Your task to perform on an android device: turn off smart reply in the gmail app Image 0: 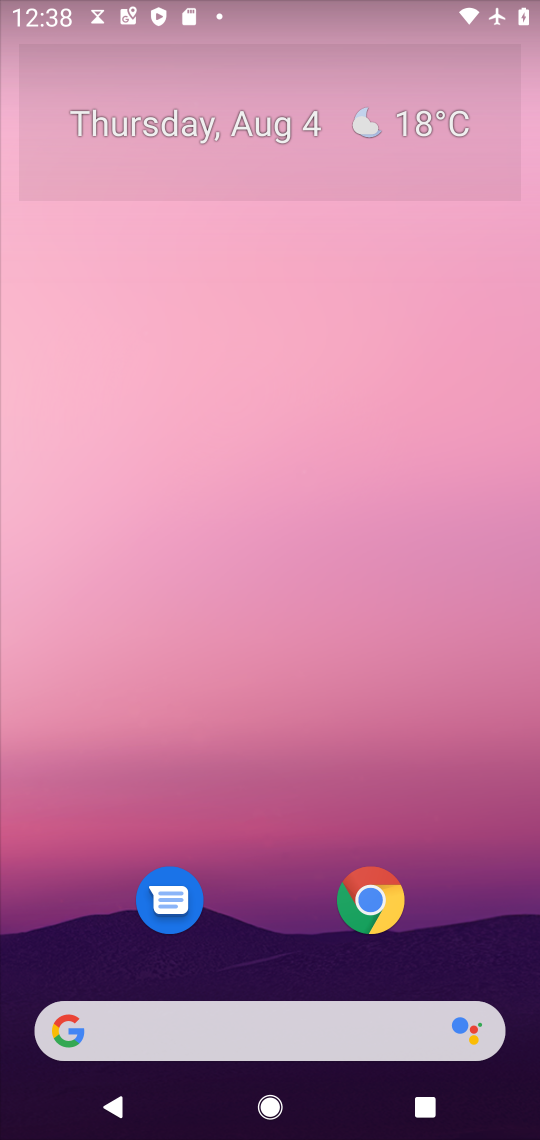
Step 0: press home button
Your task to perform on an android device: turn off smart reply in the gmail app Image 1: 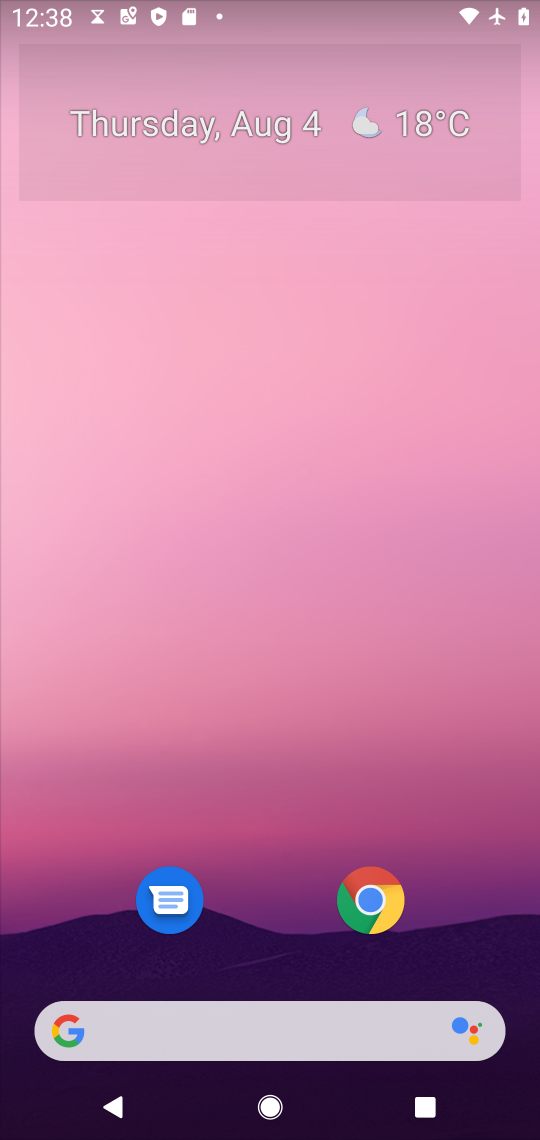
Step 1: drag from (369, 829) to (407, 206)
Your task to perform on an android device: turn off smart reply in the gmail app Image 2: 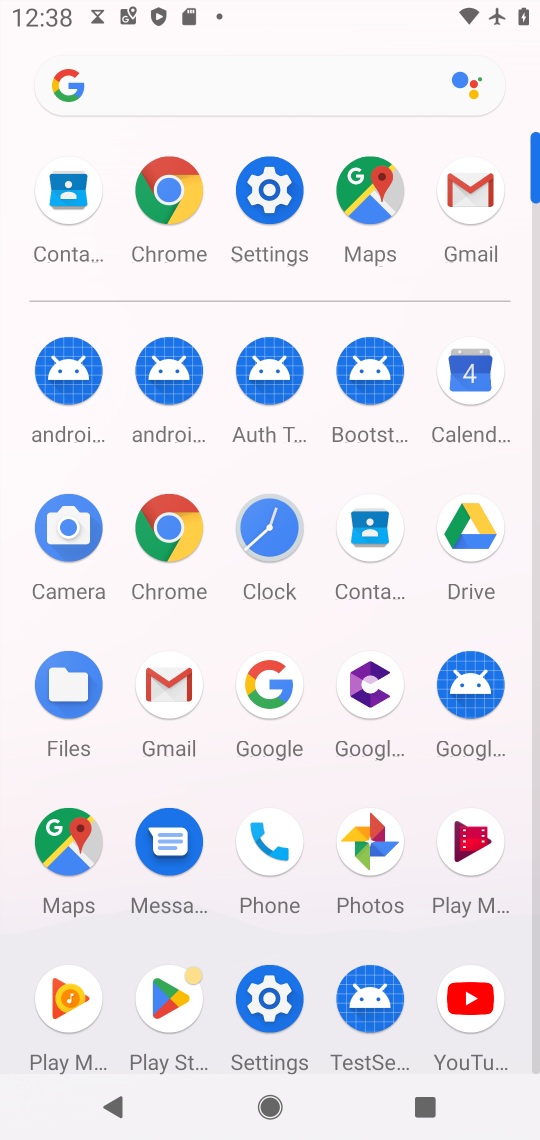
Step 2: click (463, 201)
Your task to perform on an android device: turn off smart reply in the gmail app Image 3: 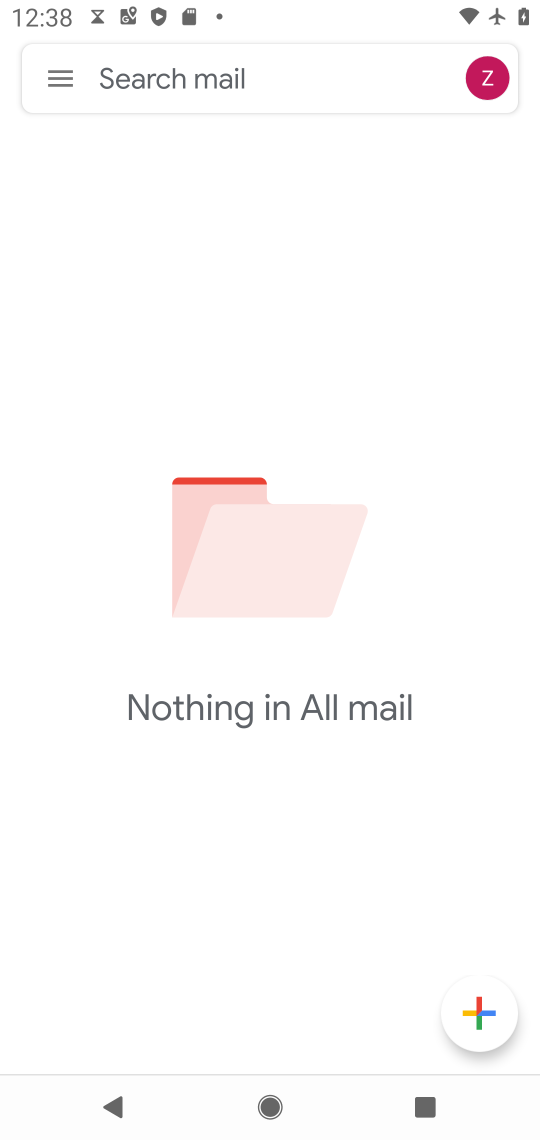
Step 3: click (73, 67)
Your task to perform on an android device: turn off smart reply in the gmail app Image 4: 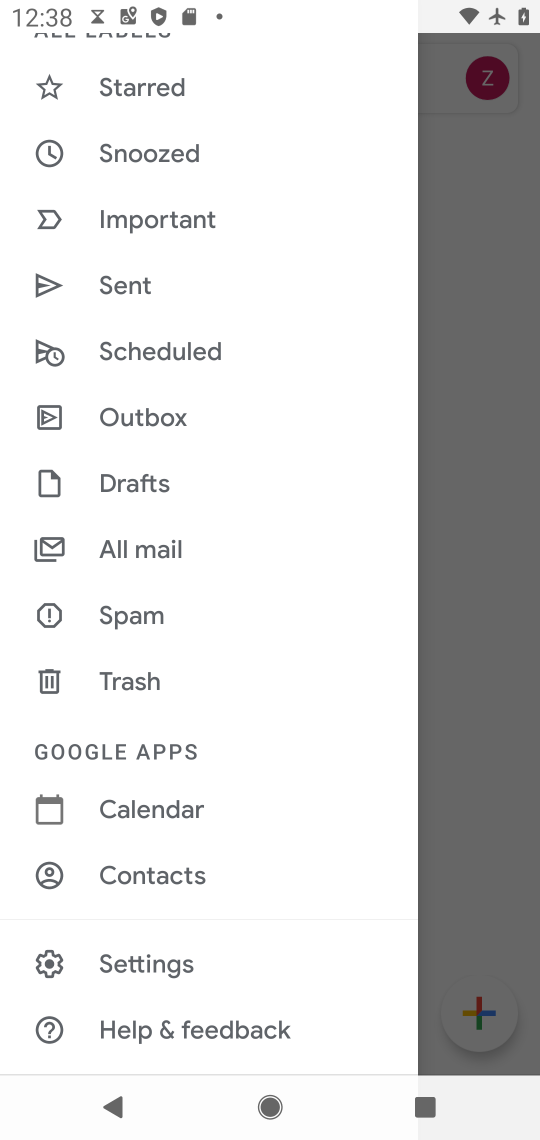
Step 4: click (148, 967)
Your task to perform on an android device: turn off smart reply in the gmail app Image 5: 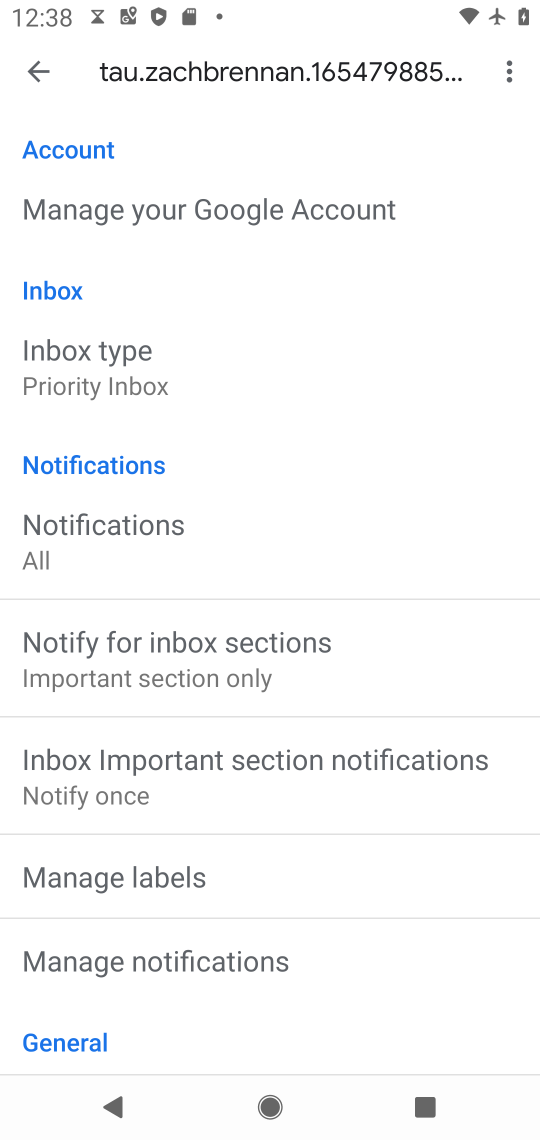
Step 5: drag from (415, 858) to (350, 64)
Your task to perform on an android device: turn off smart reply in the gmail app Image 6: 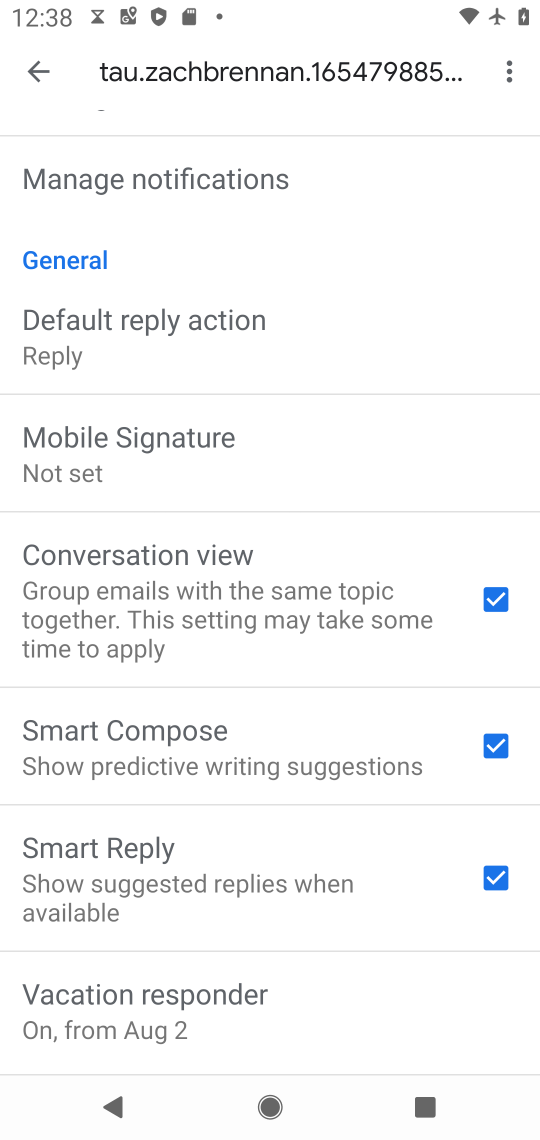
Step 6: click (501, 877)
Your task to perform on an android device: turn off smart reply in the gmail app Image 7: 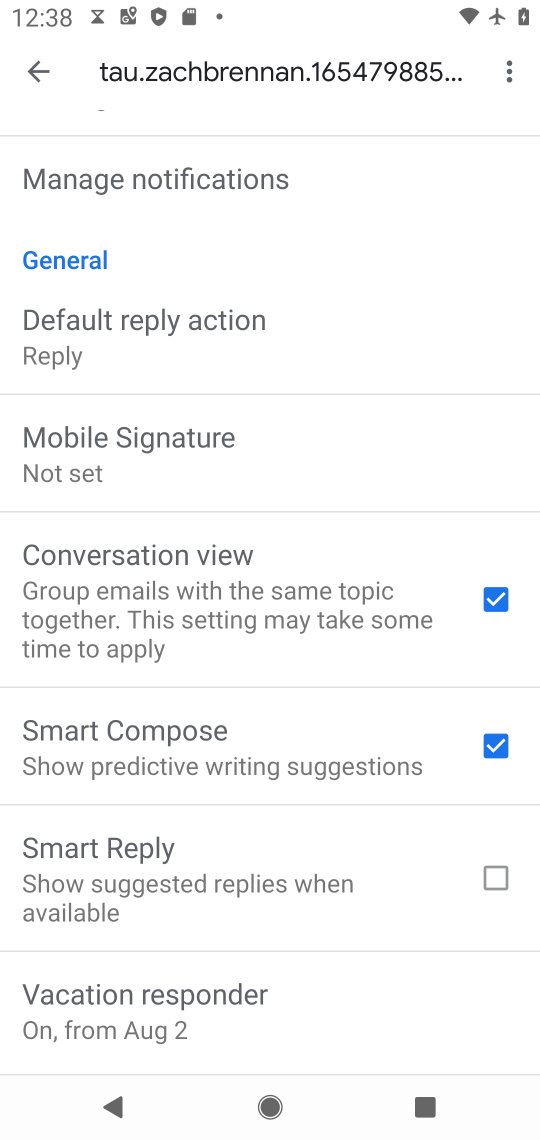
Step 7: task complete